Your task to perform on an android device: Search for sushi restaurants on Maps Image 0: 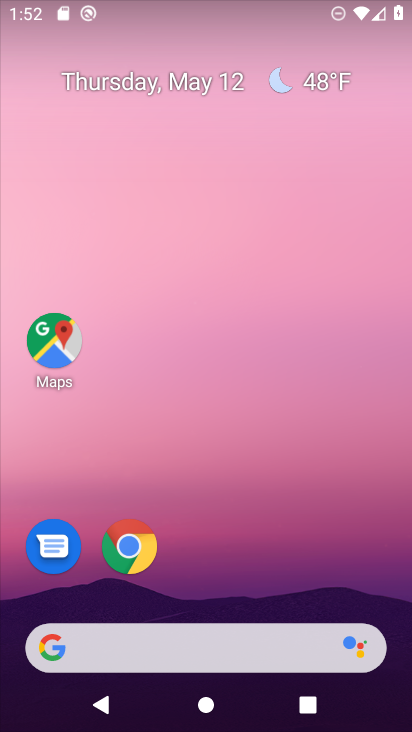
Step 0: drag from (247, 658) to (203, 290)
Your task to perform on an android device: Search for sushi restaurants on Maps Image 1: 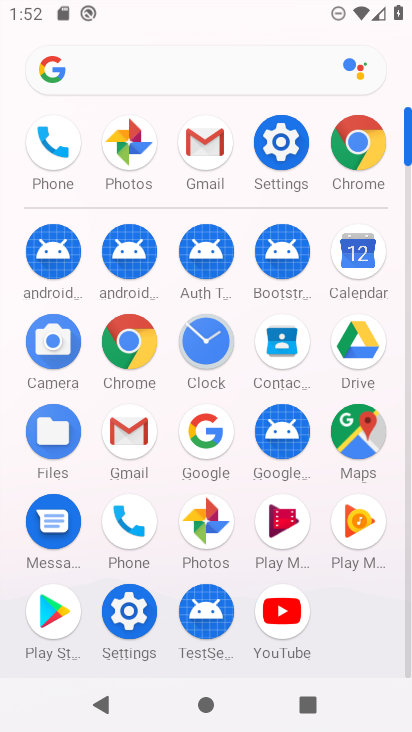
Step 1: click (349, 436)
Your task to perform on an android device: Search for sushi restaurants on Maps Image 2: 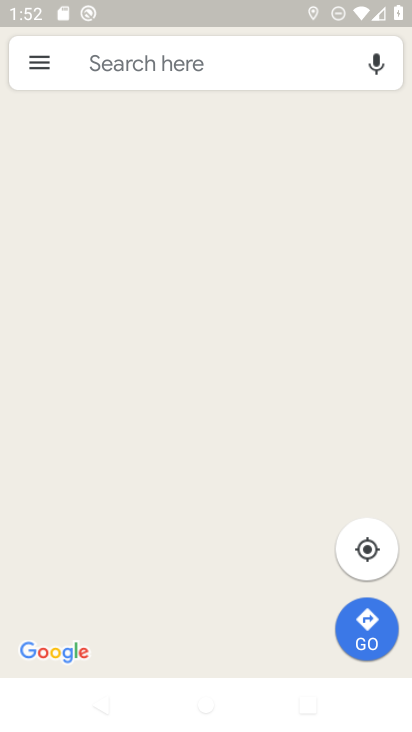
Step 2: click (123, 72)
Your task to perform on an android device: Search for sushi restaurants on Maps Image 3: 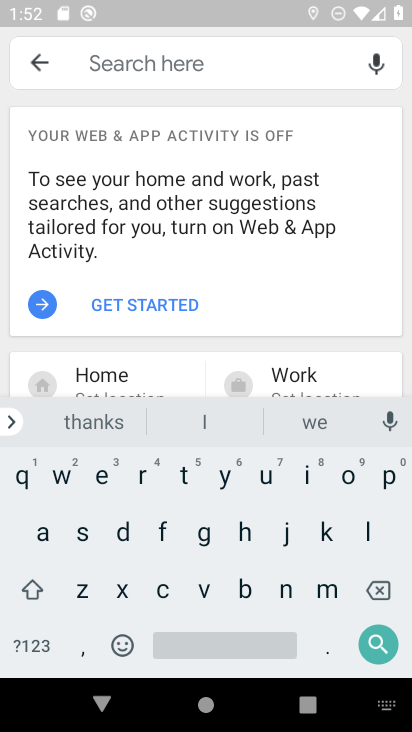
Step 3: click (165, 308)
Your task to perform on an android device: Search for sushi restaurants on Maps Image 4: 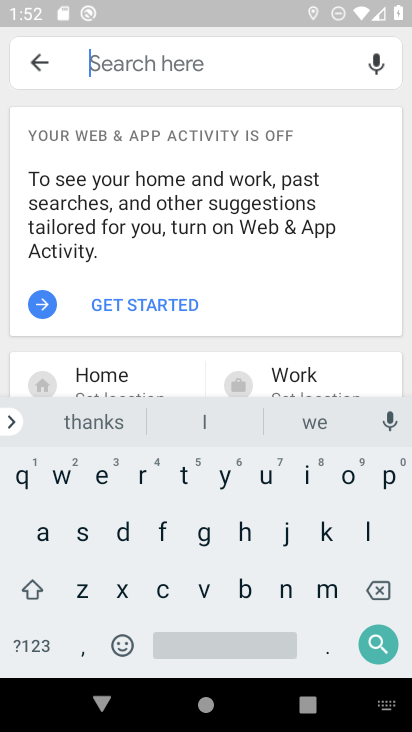
Step 4: click (118, 76)
Your task to perform on an android device: Search for sushi restaurants on Maps Image 5: 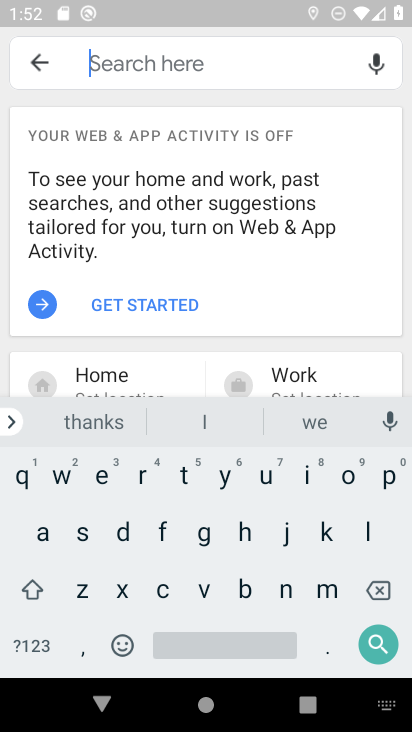
Step 5: click (77, 530)
Your task to perform on an android device: Search for sushi restaurants on Maps Image 6: 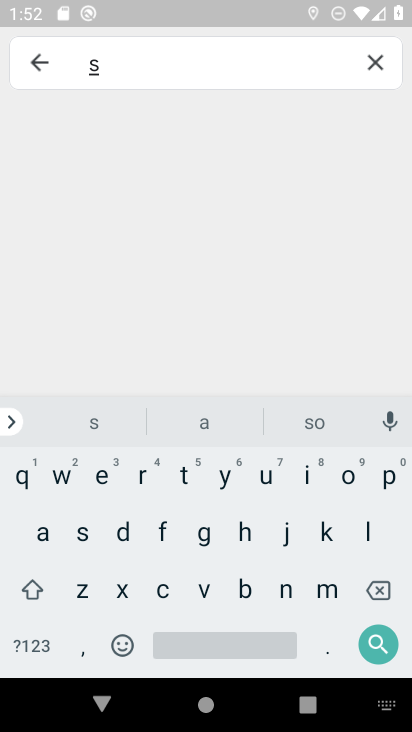
Step 6: click (265, 482)
Your task to perform on an android device: Search for sushi restaurants on Maps Image 7: 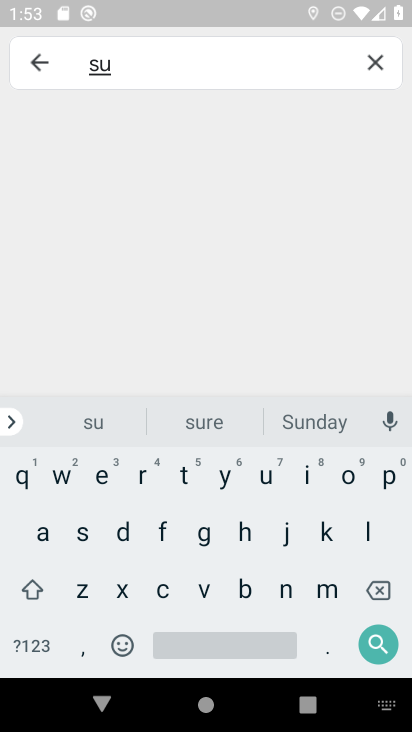
Step 7: click (78, 528)
Your task to perform on an android device: Search for sushi restaurants on Maps Image 8: 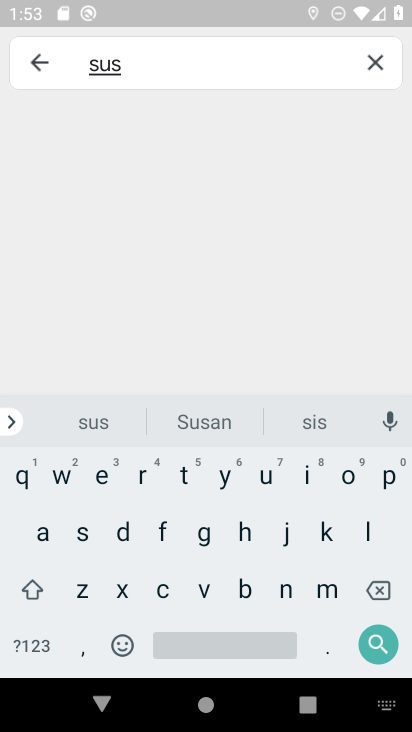
Step 8: click (242, 524)
Your task to perform on an android device: Search for sushi restaurants on Maps Image 9: 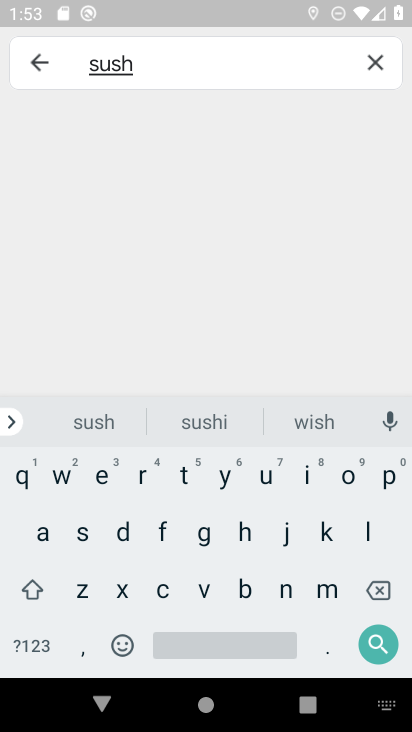
Step 9: click (305, 475)
Your task to perform on an android device: Search for sushi restaurants on Maps Image 10: 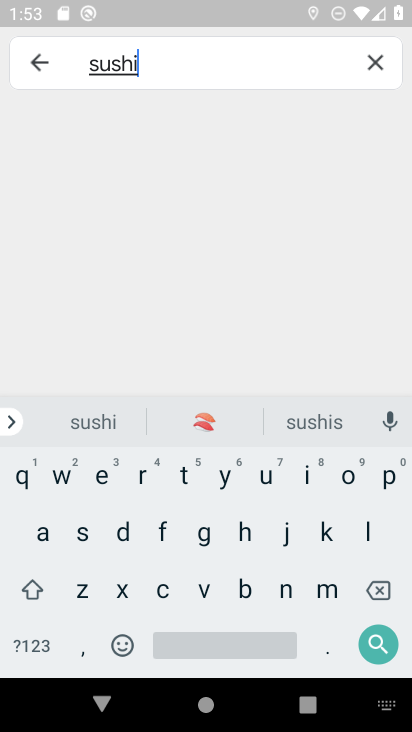
Step 10: click (230, 644)
Your task to perform on an android device: Search for sushi restaurants on Maps Image 11: 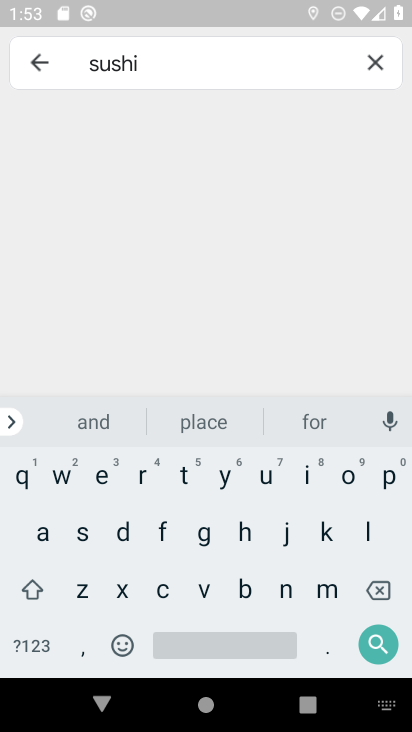
Step 11: click (137, 466)
Your task to perform on an android device: Search for sushi restaurants on Maps Image 12: 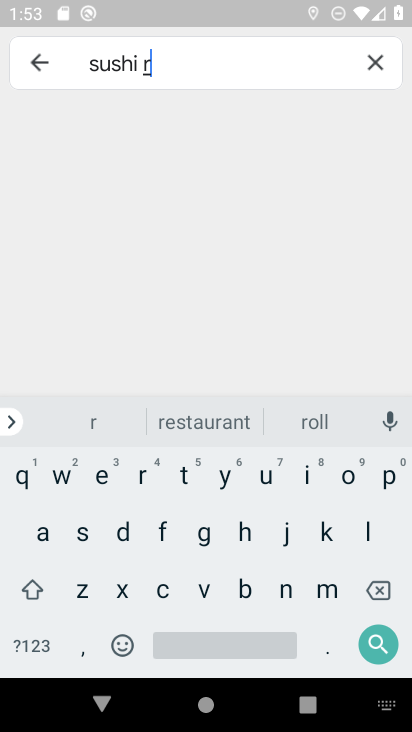
Step 12: click (109, 478)
Your task to perform on an android device: Search for sushi restaurants on Maps Image 13: 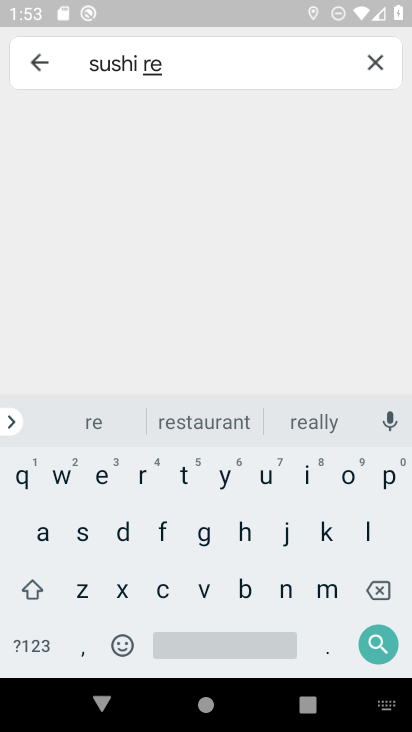
Step 13: click (193, 429)
Your task to perform on an android device: Search for sushi restaurants on Maps Image 14: 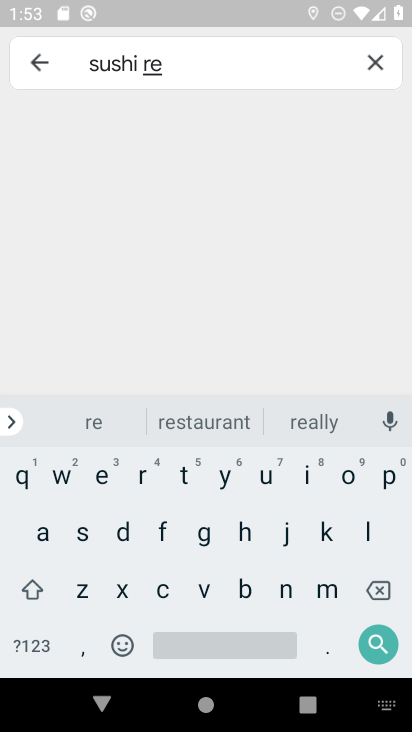
Step 14: click (201, 430)
Your task to perform on an android device: Search for sushi restaurants on Maps Image 15: 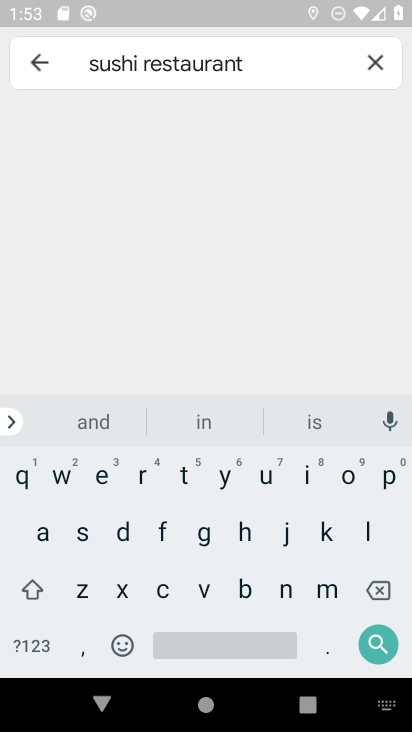
Step 15: click (381, 649)
Your task to perform on an android device: Search for sushi restaurants on Maps Image 16: 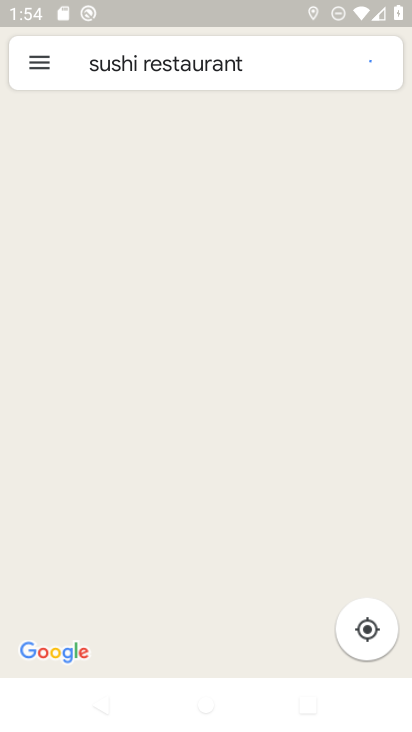
Step 16: click (184, 478)
Your task to perform on an android device: Search for sushi restaurants on Maps Image 17: 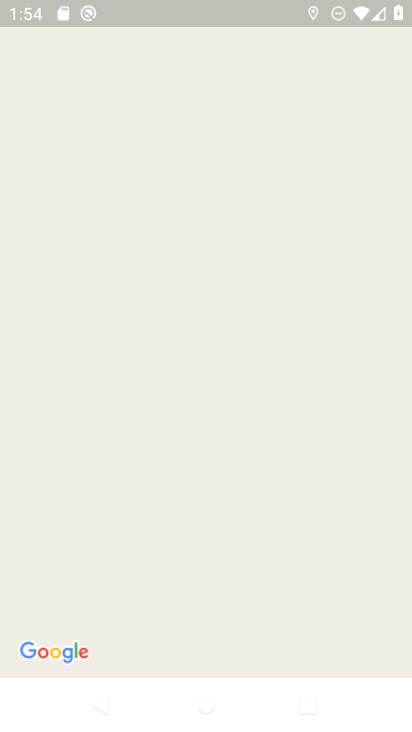
Step 17: click (203, 404)
Your task to perform on an android device: Search for sushi restaurants on Maps Image 18: 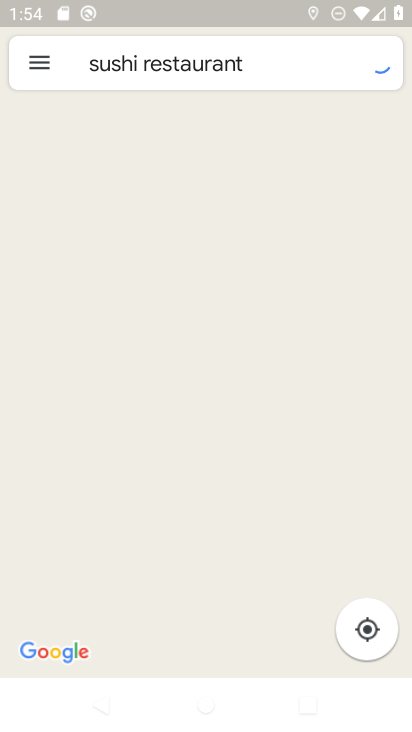
Step 18: task complete